Your task to perform on an android device: Open the map Image 0: 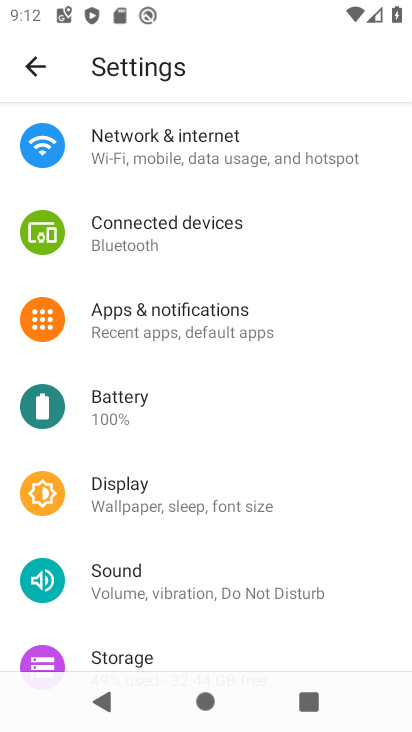
Step 0: press home button
Your task to perform on an android device: Open the map Image 1: 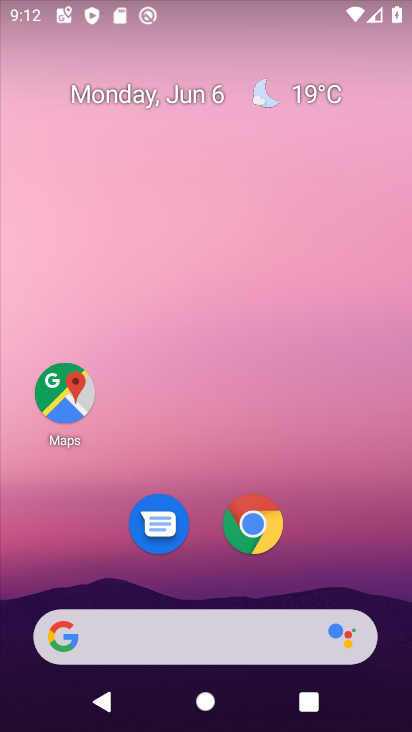
Step 1: click (67, 391)
Your task to perform on an android device: Open the map Image 2: 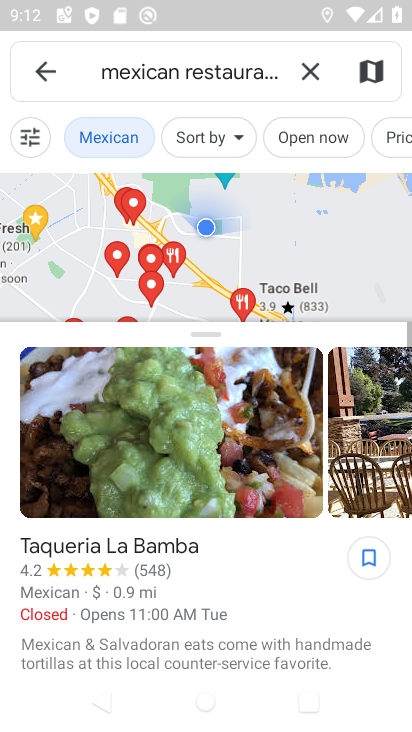
Step 2: click (304, 63)
Your task to perform on an android device: Open the map Image 3: 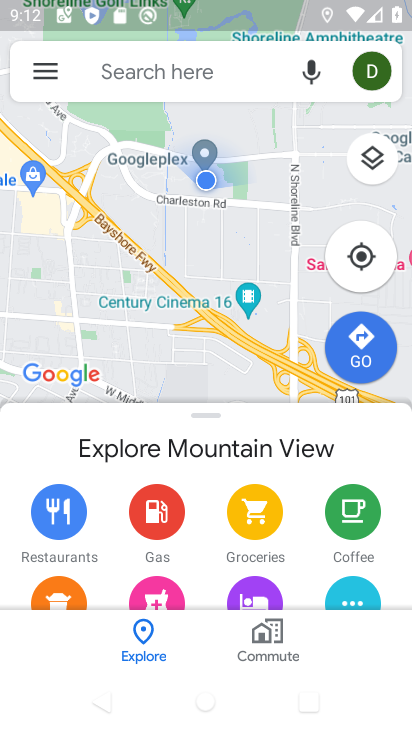
Step 3: task complete